Your task to perform on an android device: Do I have any events this weekend? Image 0: 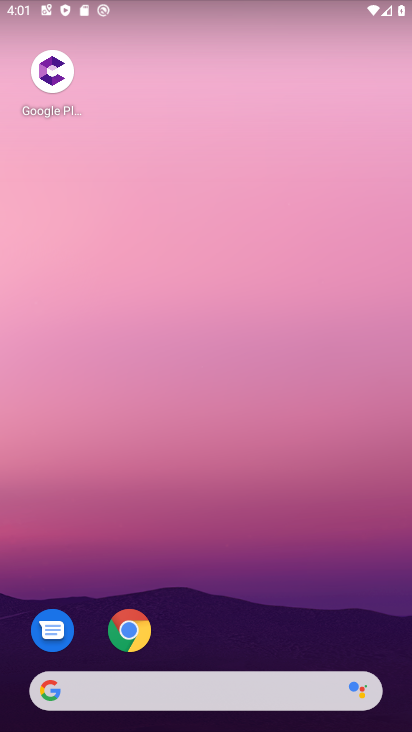
Step 0: drag from (329, 684) to (353, 137)
Your task to perform on an android device: Do I have any events this weekend? Image 1: 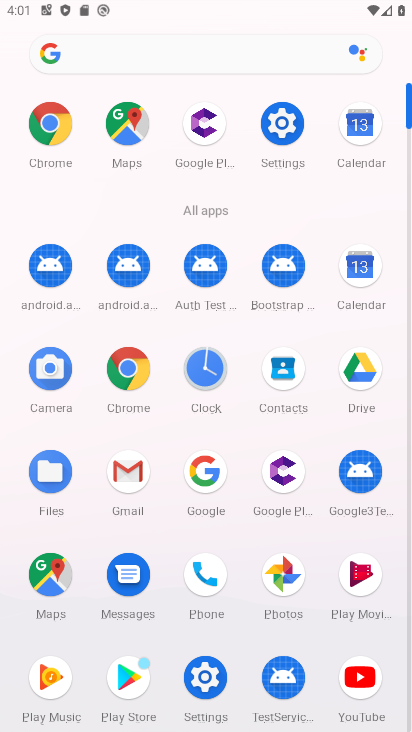
Step 1: click (356, 282)
Your task to perform on an android device: Do I have any events this weekend? Image 2: 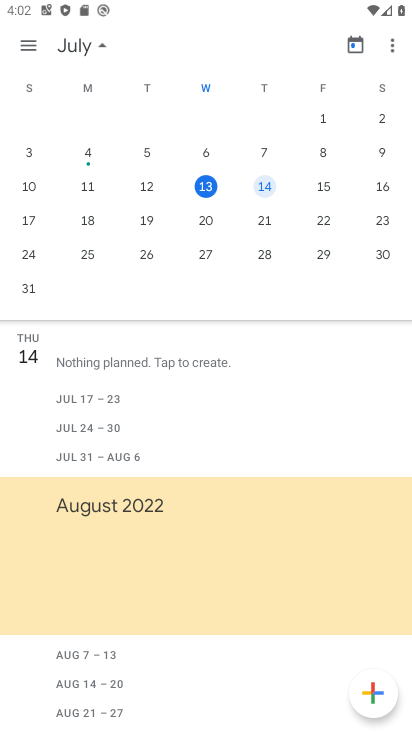
Step 2: click (374, 183)
Your task to perform on an android device: Do I have any events this weekend? Image 3: 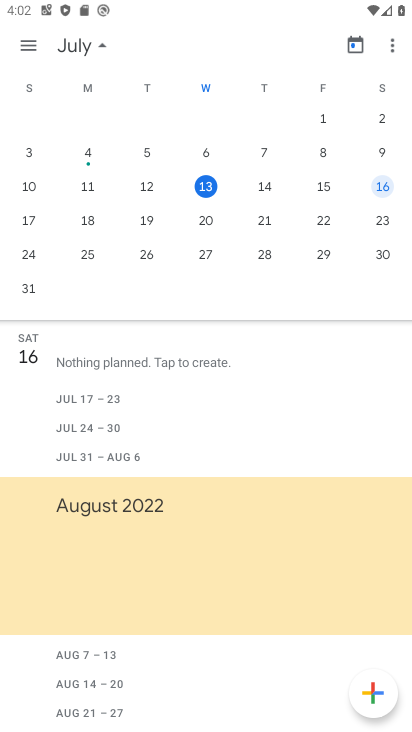
Step 3: click (385, 191)
Your task to perform on an android device: Do I have any events this weekend? Image 4: 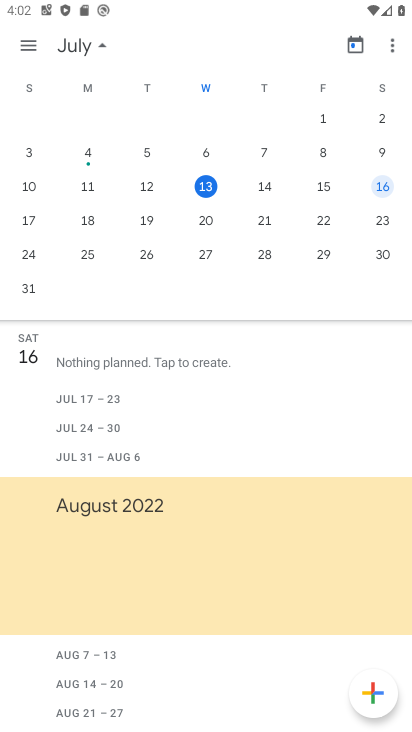
Step 4: task complete